Your task to perform on an android device: Play the last video I watched on Youtube Image 0: 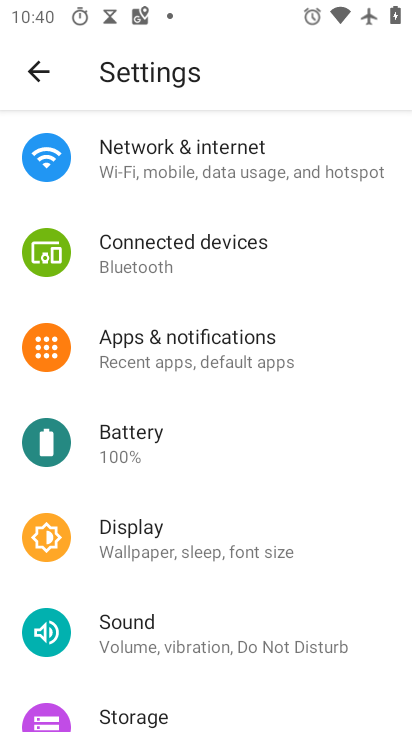
Step 0: press home button
Your task to perform on an android device: Play the last video I watched on Youtube Image 1: 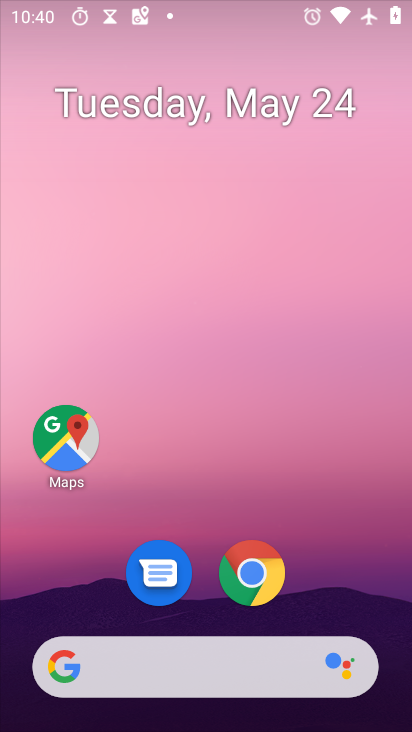
Step 1: drag from (317, 535) to (287, 0)
Your task to perform on an android device: Play the last video I watched on Youtube Image 2: 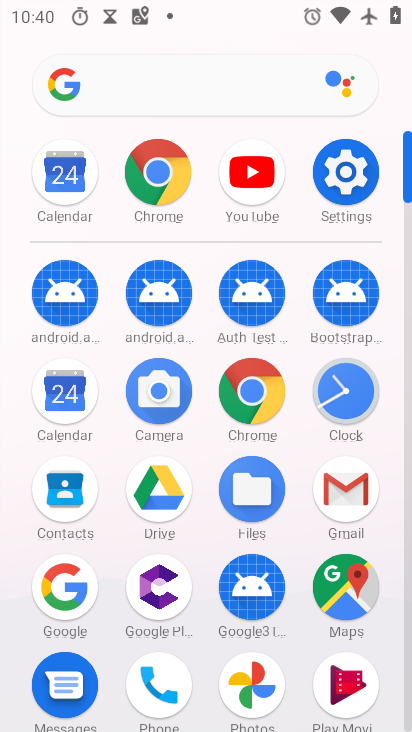
Step 2: click (246, 164)
Your task to perform on an android device: Play the last video I watched on Youtube Image 3: 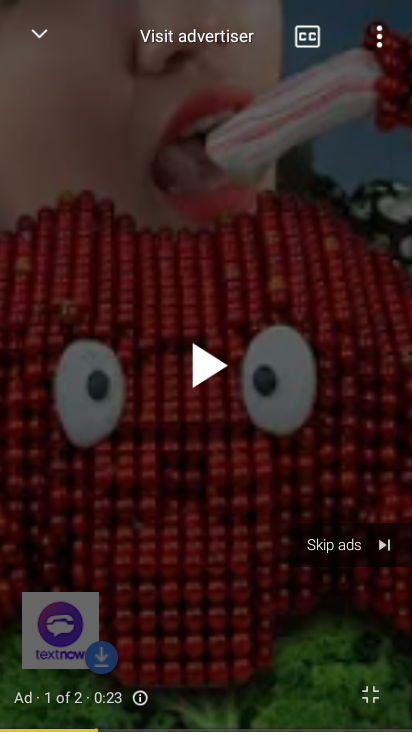
Step 3: click (197, 388)
Your task to perform on an android device: Play the last video I watched on Youtube Image 4: 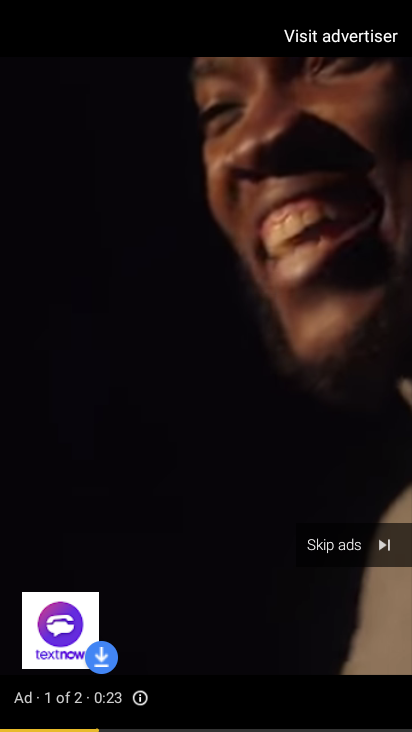
Step 4: task complete